Your task to perform on an android device: clear all cookies in the chrome app Image 0: 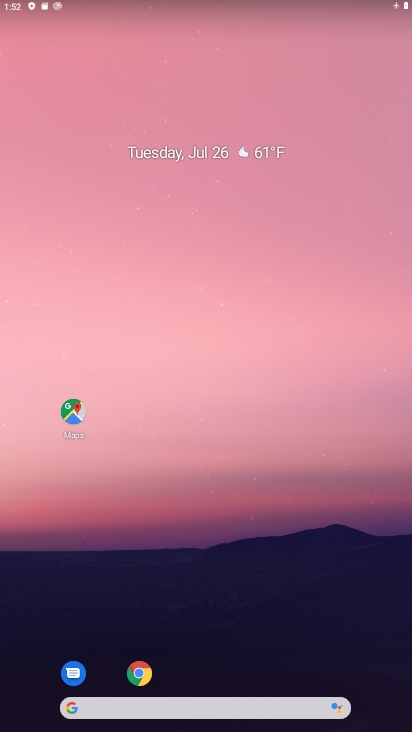
Step 0: drag from (207, 528) to (296, 70)
Your task to perform on an android device: clear all cookies in the chrome app Image 1: 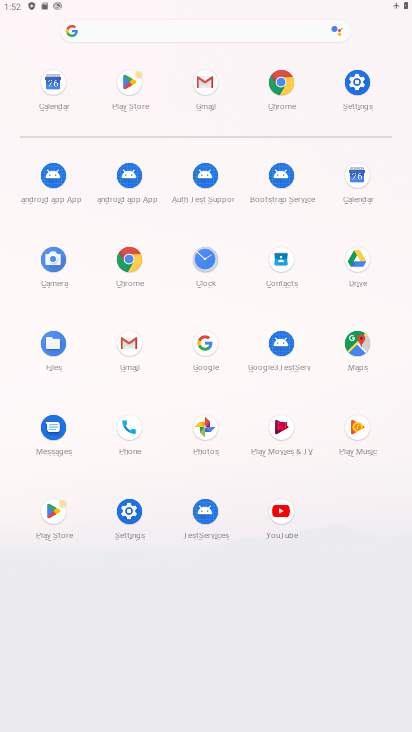
Step 1: click (276, 79)
Your task to perform on an android device: clear all cookies in the chrome app Image 2: 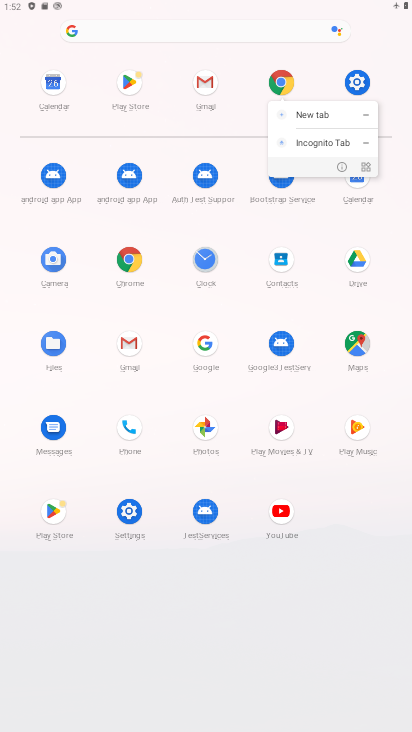
Step 2: click (339, 166)
Your task to perform on an android device: clear all cookies in the chrome app Image 3: 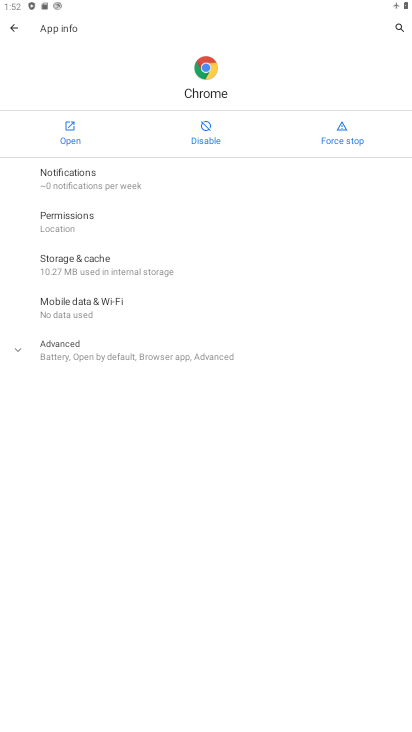
Step 3: click (67, 127)
Your task to perform on an android device: clear all cookies in the chrome app Image 4: 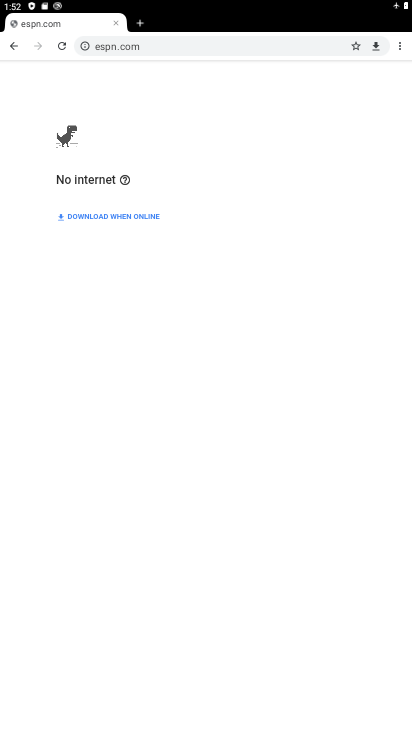
Step 4: task complete